Your task to perform on an android device: What is the recent news? Image 0: 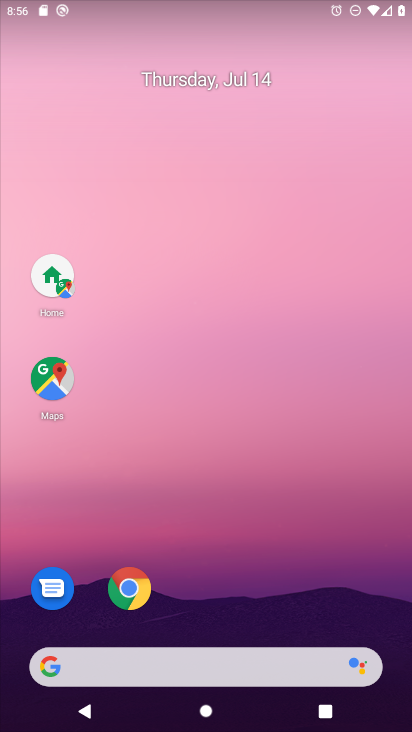
Step 0: click (114, 666)
Your task to perform on an android device: What is the recent news? Image 1: 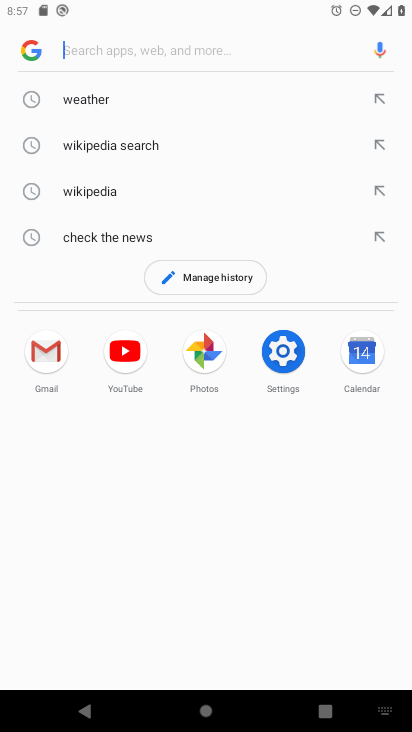
Step 1: type "What is the recent news?"
Your task to perform on an android device: What is the recent news? Image 2: 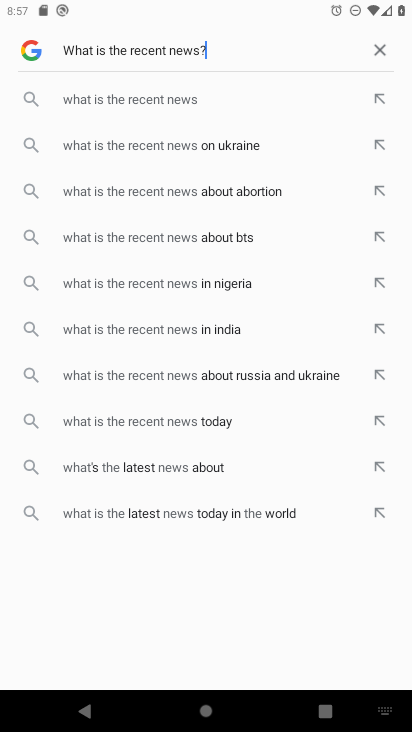
Step 2: type ""
Your task to perform on an android device: What is the recent news? Image 3: 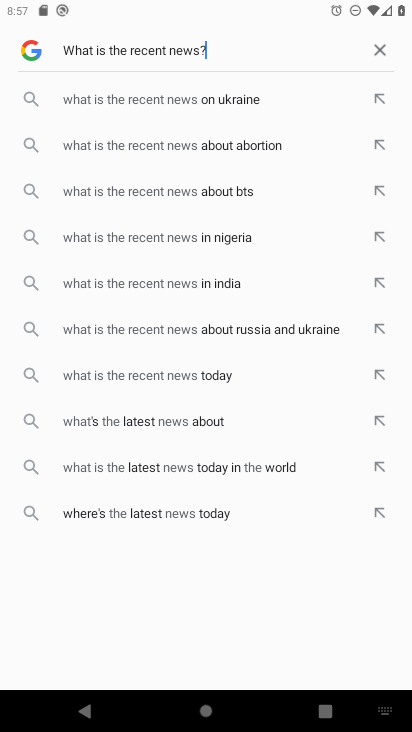
Step 3: type ""
Your task to perform on an android device: What is the recent news? Image 4: 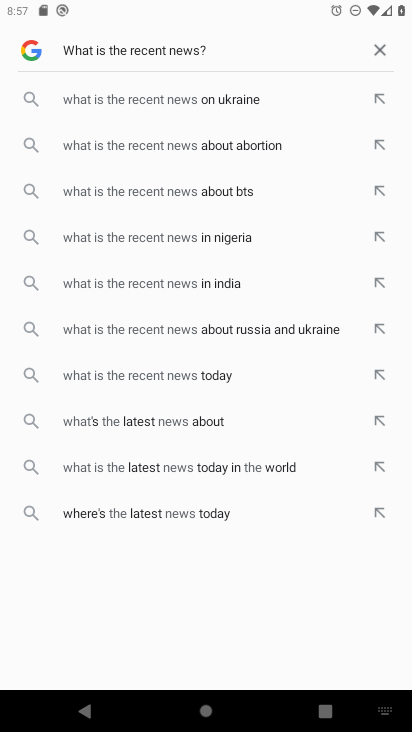
Step 4: type ""
Your task to perform on an android device: What is the recent news? Image 5: 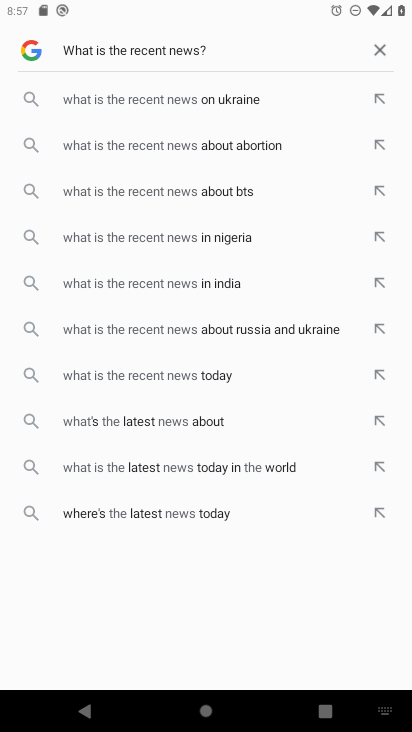
Step 5: task complete